Your task to perform on an android device: When is my next meeting? Image 0: 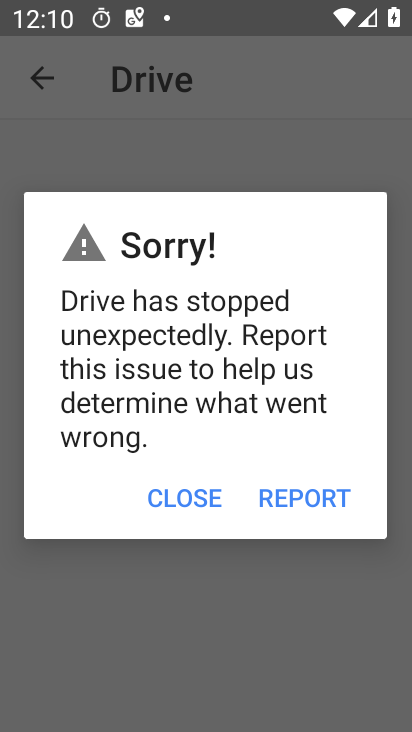
Step 0: press home button
Your task to perform on an android device: When is my next meeting? Image 1: 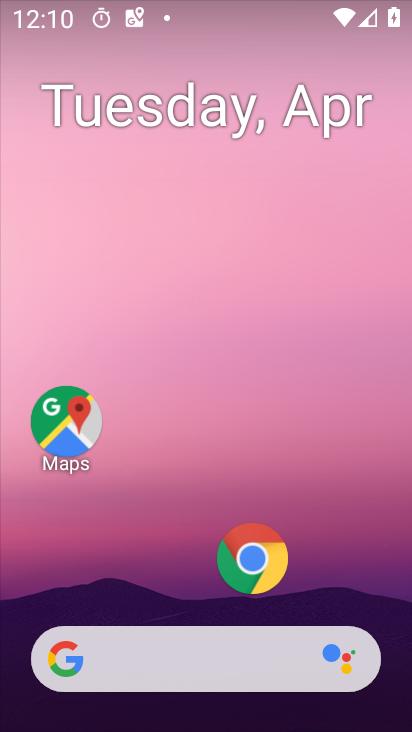
Step 1: drag from (168, 617) to (202, 117)
Your task to perform on an android device: When is my next meeting? Image 2: 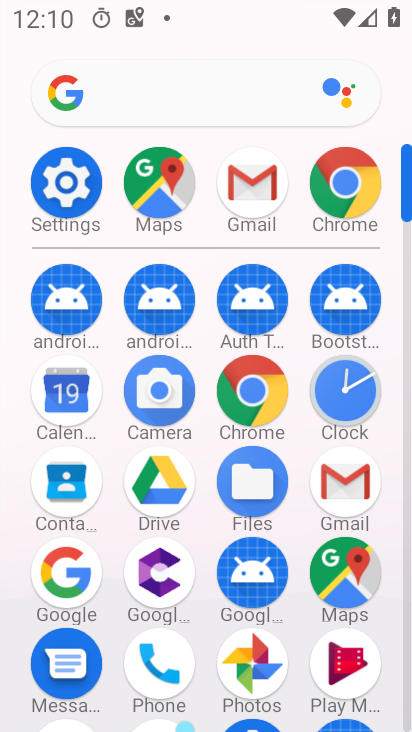
Step 2: click (73, 398)
Your task to perform on an android device: When is my next meeting? Image 3: 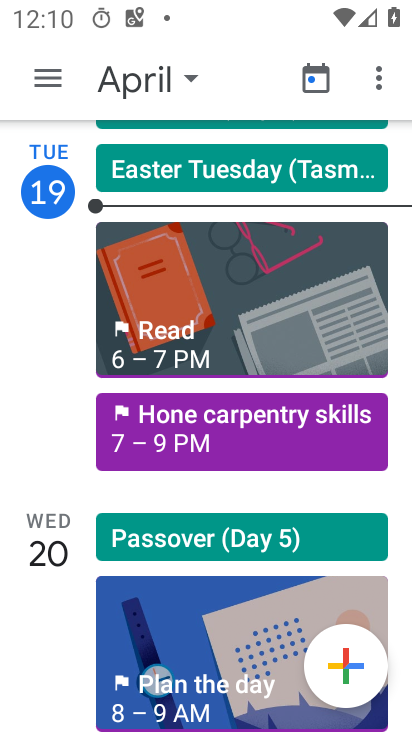
Step 3: click (47, 73)
Your task to perform on an android device: When is my next meeting? Image 4: 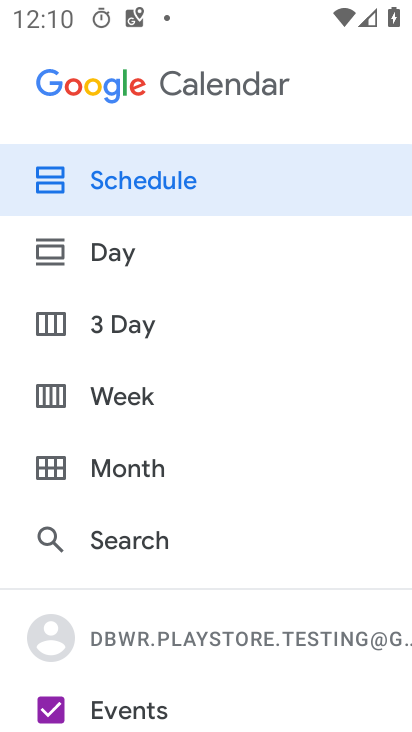
Step 4: drag from (131, 641) to (150, 365)
Your task to perform on an android device: When is my next meeting? Image 5: 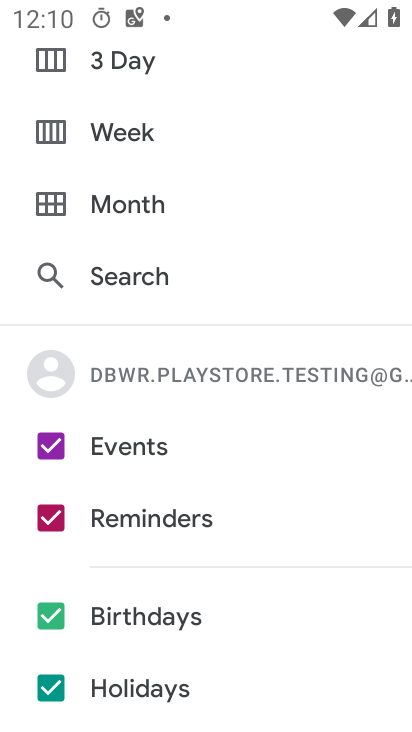
Step 5: click (50, 517)
Your task to perform on an android device: When is my next meeting? Image 6: 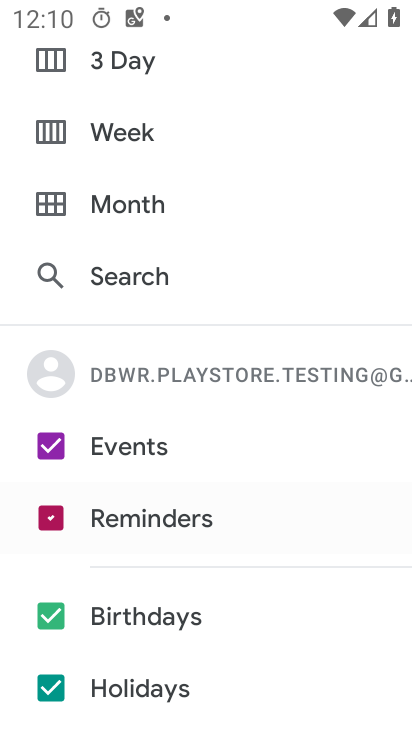
Step 6: click (47, 627)
Your task to perform on an android device: When is my next meeting? Image 7: 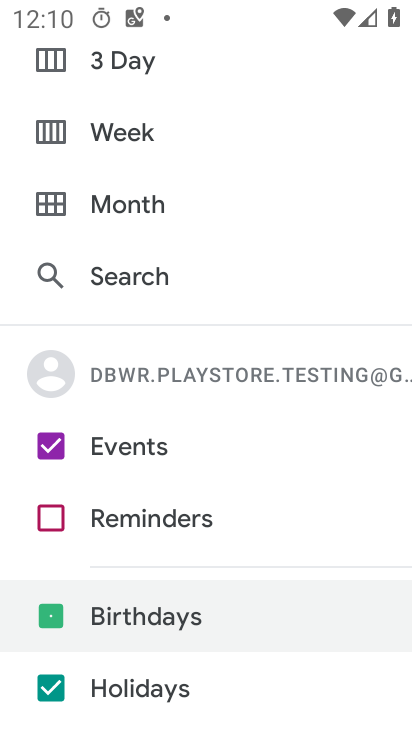
Step 7: click (60, 695)
Your task to perform on an android device: When is my next meeting? Image 8: 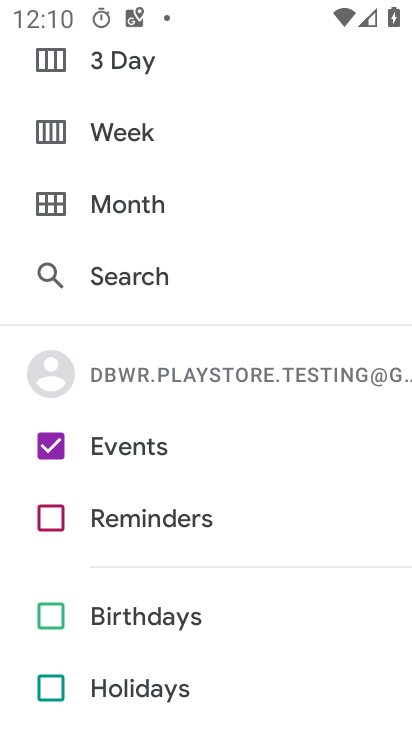
Step 8: drag from (166, 207) to (172, 582)
Your task to perform on an android device: When is my next meeting? Image 9: 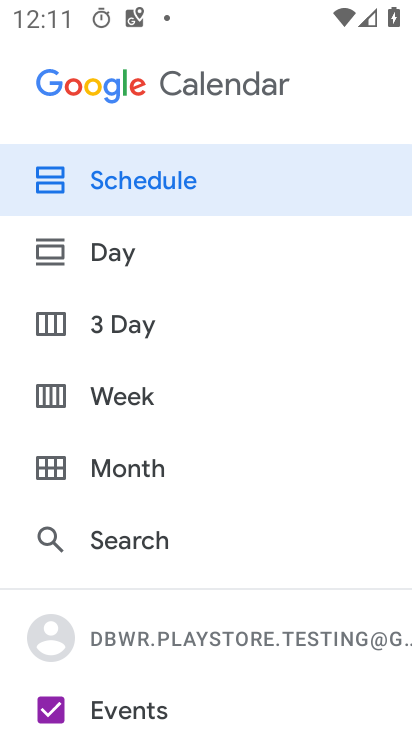
Step 9: click (324, 186)
Your task to perform on an android device: When is my next meeting? Image 10: 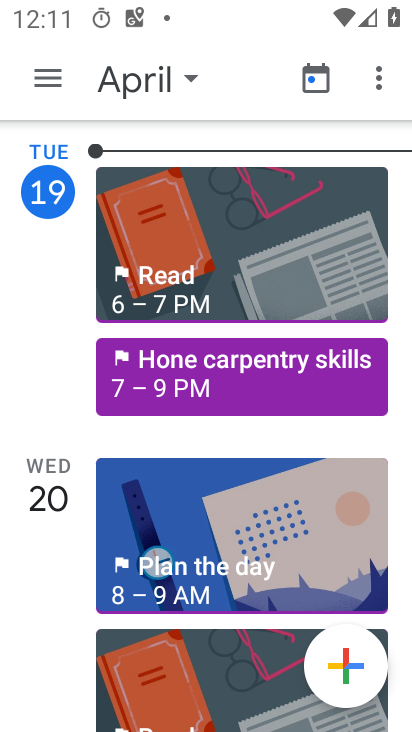
Step 10: drag from (210, 233) to (207, 507)
Your task to perform on an android device: When is my next meeting? Image 11: 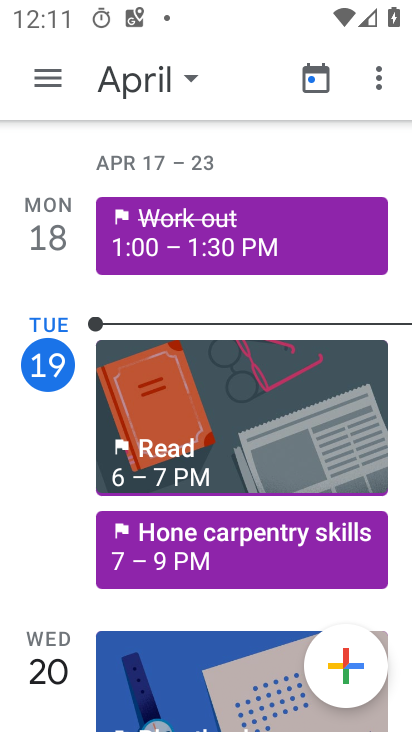
Step 11: click (155, 78)
Your task to perform on an android device: When is my next meeting? Image 12: 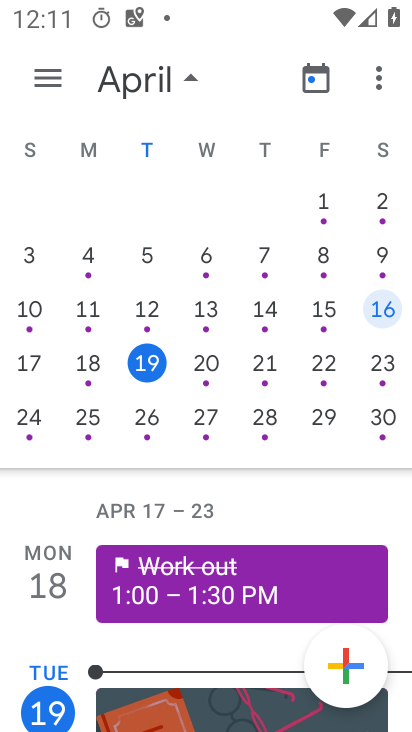
Step 12: click (34, 73)
Your task to perform on an android device: When is my next meeting? Image 13: 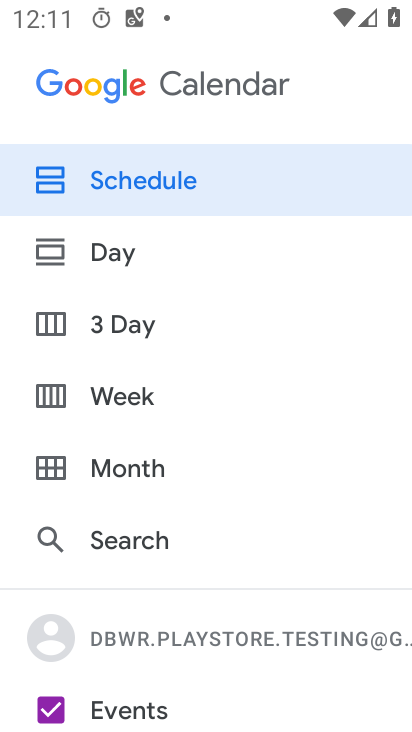
Step 13: drag from (140, 457) to (174, 135)
Your task to perform on an android device: When is my next meeting? Image 14: 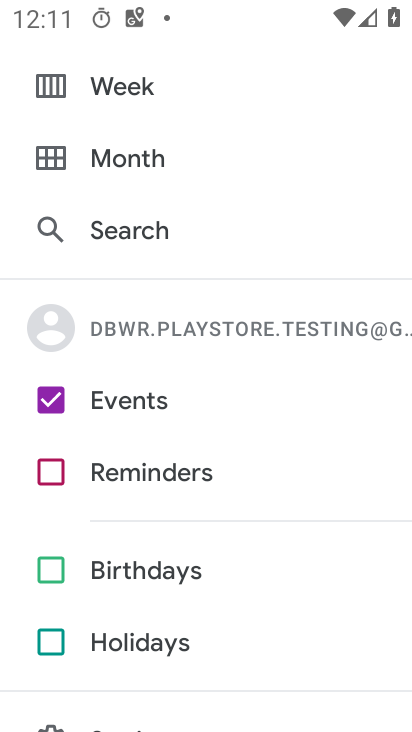
Step 14: drag from (201, 483) to (233, 199)
Your task to perform on an android device: When is my next meeting? Image 15: 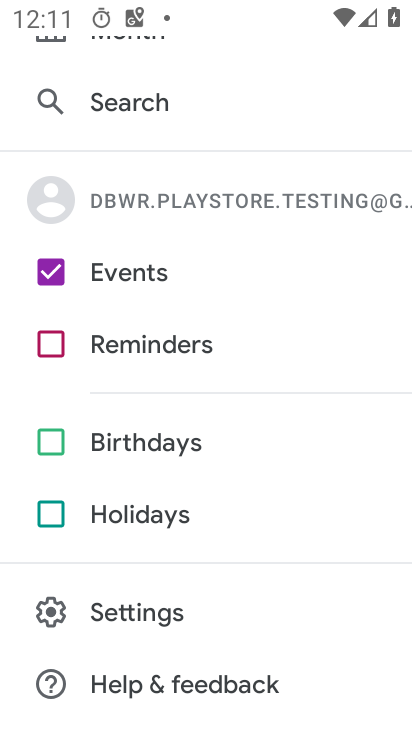
Step 15: drag from (126, 228) to (117, 614)
Your task to perform on an android device: When is my next meeting? Image 16: 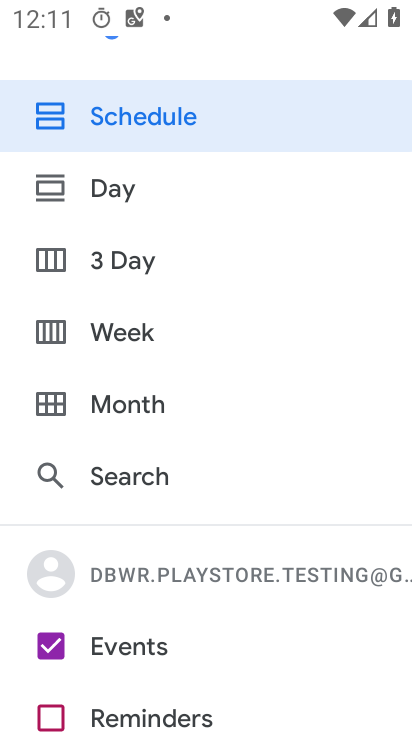
Step 16: click (201, 119)
Your task to perform on an android device: When is my next meeting? Image 17: 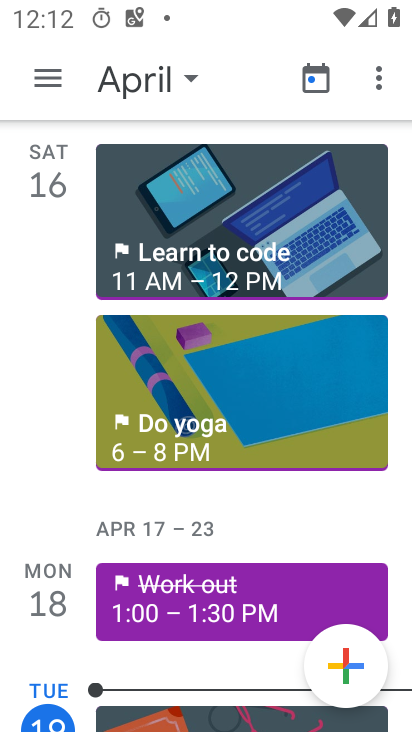
Step 17: click (155, 86)
Your task to perform on an android device: When is my next meeting? Image 18: 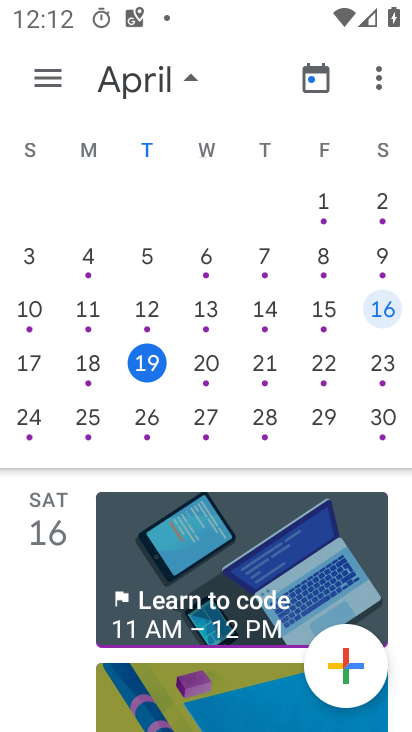
Step 18: click (200, 360)
Your task to perform on an android device: When is my next meeting? Image 19: 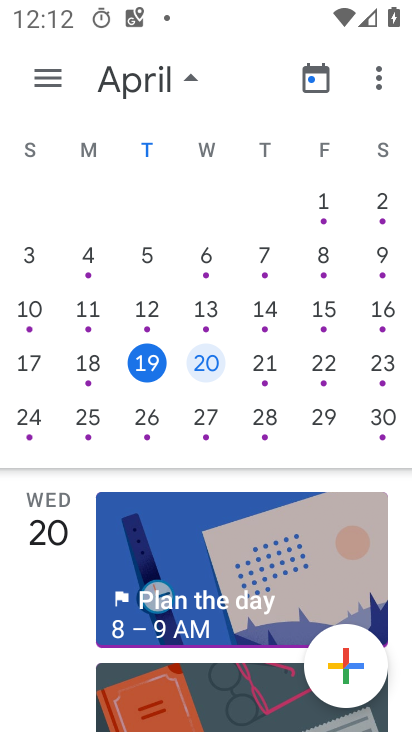
Step 19: click (267, 367)
Your task to perform on an android device: When is my next meeting? Image 20: 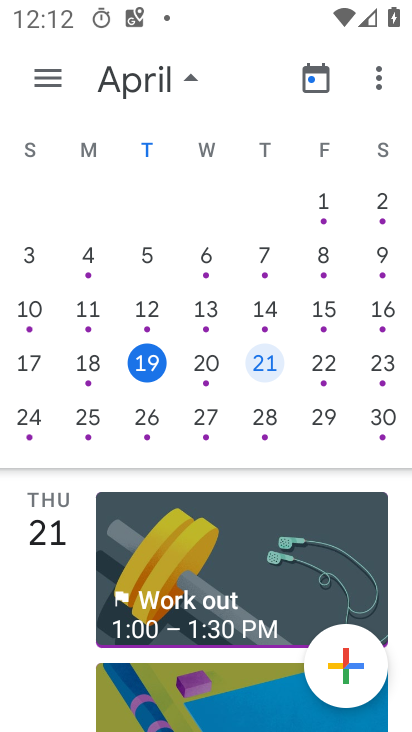
Step 20: click (328, 367)
Your task to perform on an android device: When is my next meeting? Image 21: 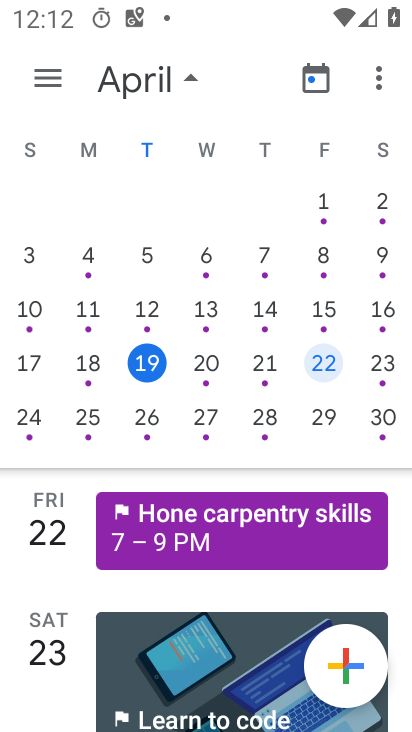
Step 21: click (392, 373)
Your task to perform on an android device: When is my next meeting? Image 22: 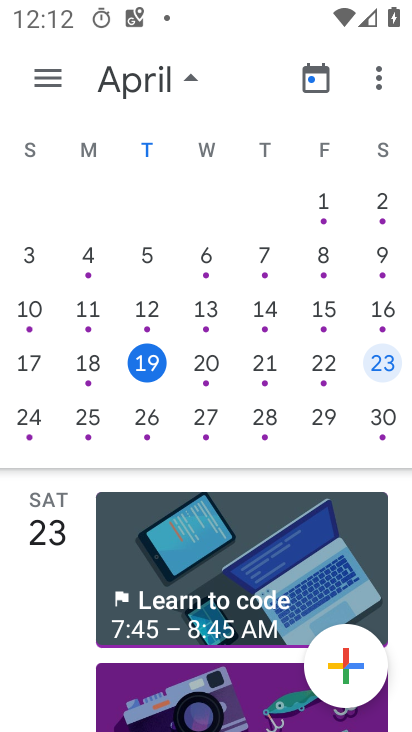
Step 22: click (38, 419)
Your task to perform on an android device: When is my next meeting? Image 23: 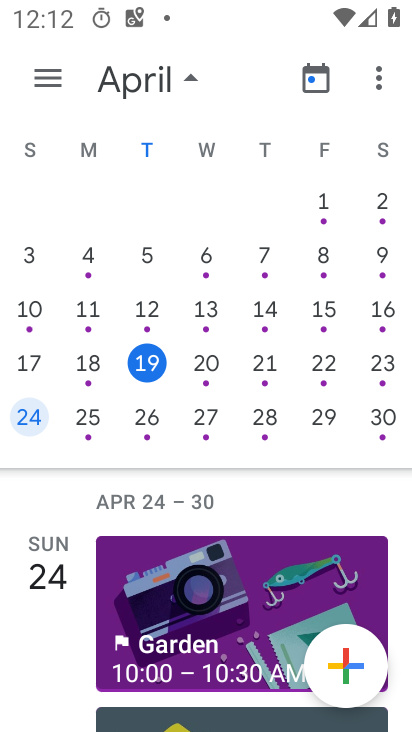
Step 23: click (106, 417)
Your task to perform on an android device: When is my next meeting? Image 24: 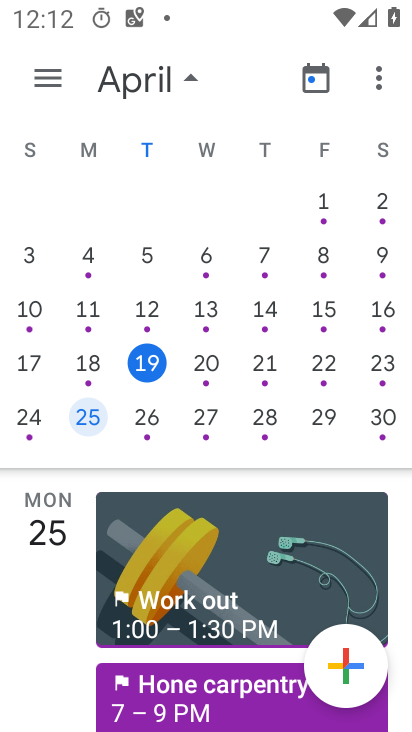
Step 24: click (151, 417)
Your task to perform on an android device: When is my next meeting? Image 25: 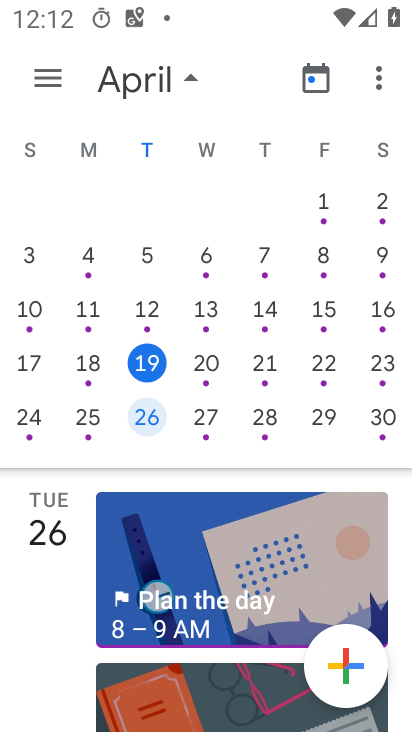
Step 25: click (199, 420)
Your task to perform on an android device: When is my next meeting? Image 26: 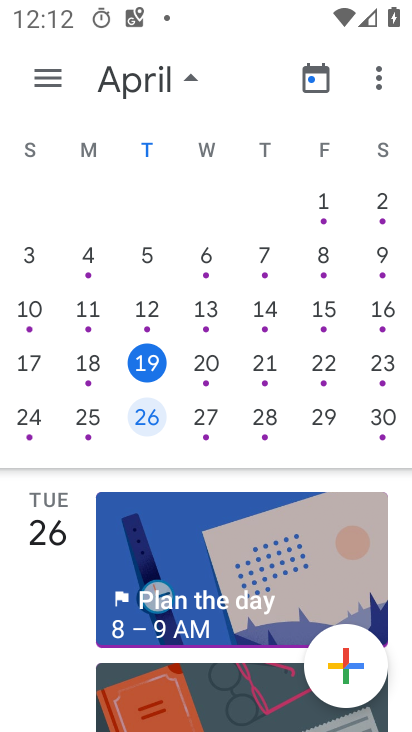
Step 26: click (270, 420)
Your task to perform on an android device: When is my next meeting? Image 27: 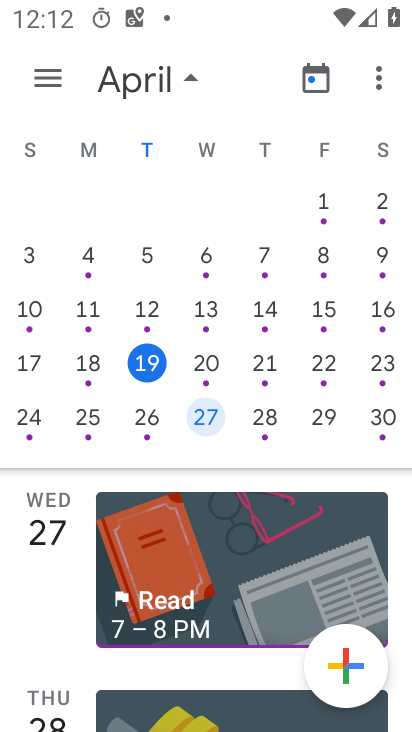
Step 27: click (335, 416)
Your task to perform on an android device: When is my next meeting? Image 28: 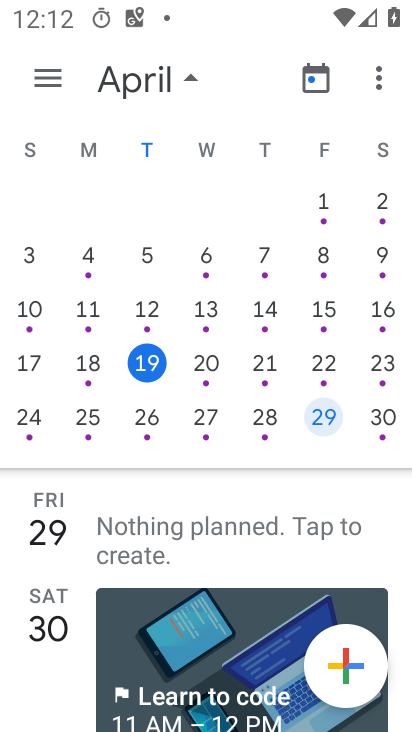
Step 28: click (371, 417)
Your task to perform on an android device: When is my next meeting? Image 29: 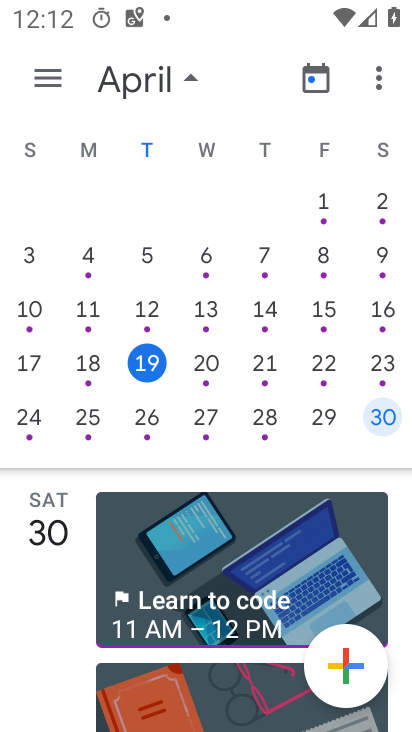
Step 29: drag from (308, 308) to (85, 308)
Your task to perform on an android device: When is my next meeting? Image 30: 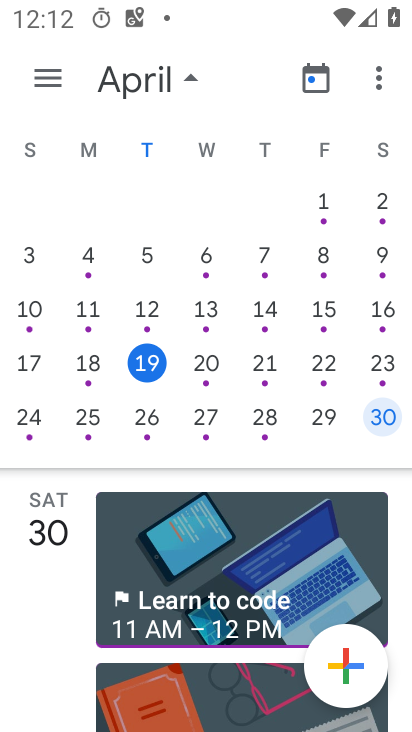
Step 30: drag from (304, 242) to (9, 261)
Your task to perform on an android device: When is my next meeting? Image 31: 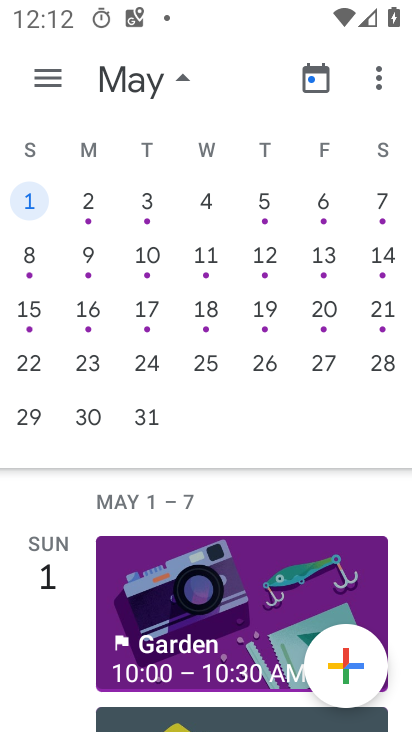
Step 31: click (41, 207)
Your task to perform on an android device: When is my next meeting? Image 32: 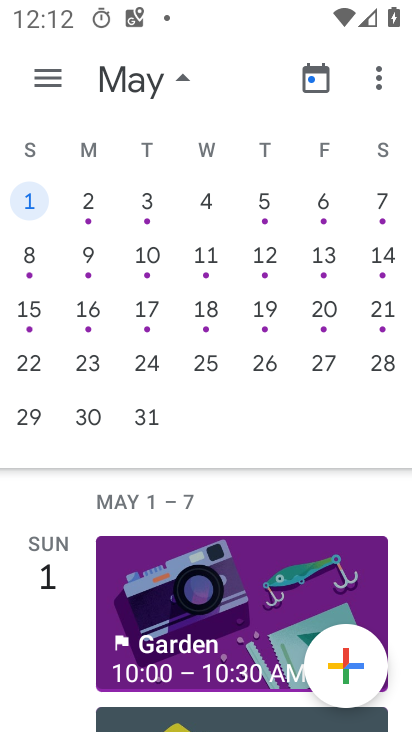
Step 32: click (94, 204)
Your task to perform on an android device: When is my next meeting? Image 33: 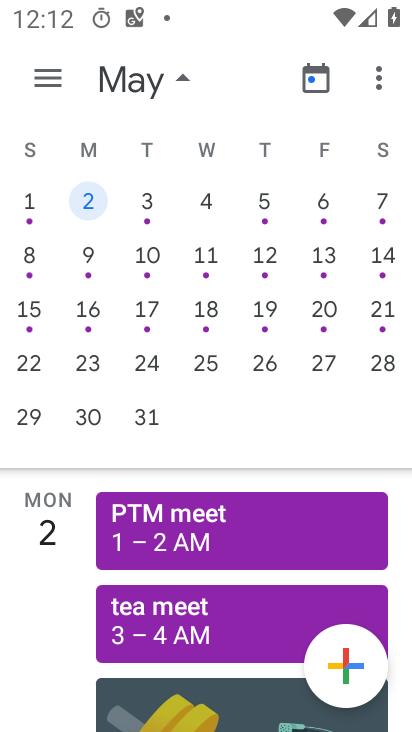
Step 33: task complete